Your task to perform on an android device: turn on location history Image 0: 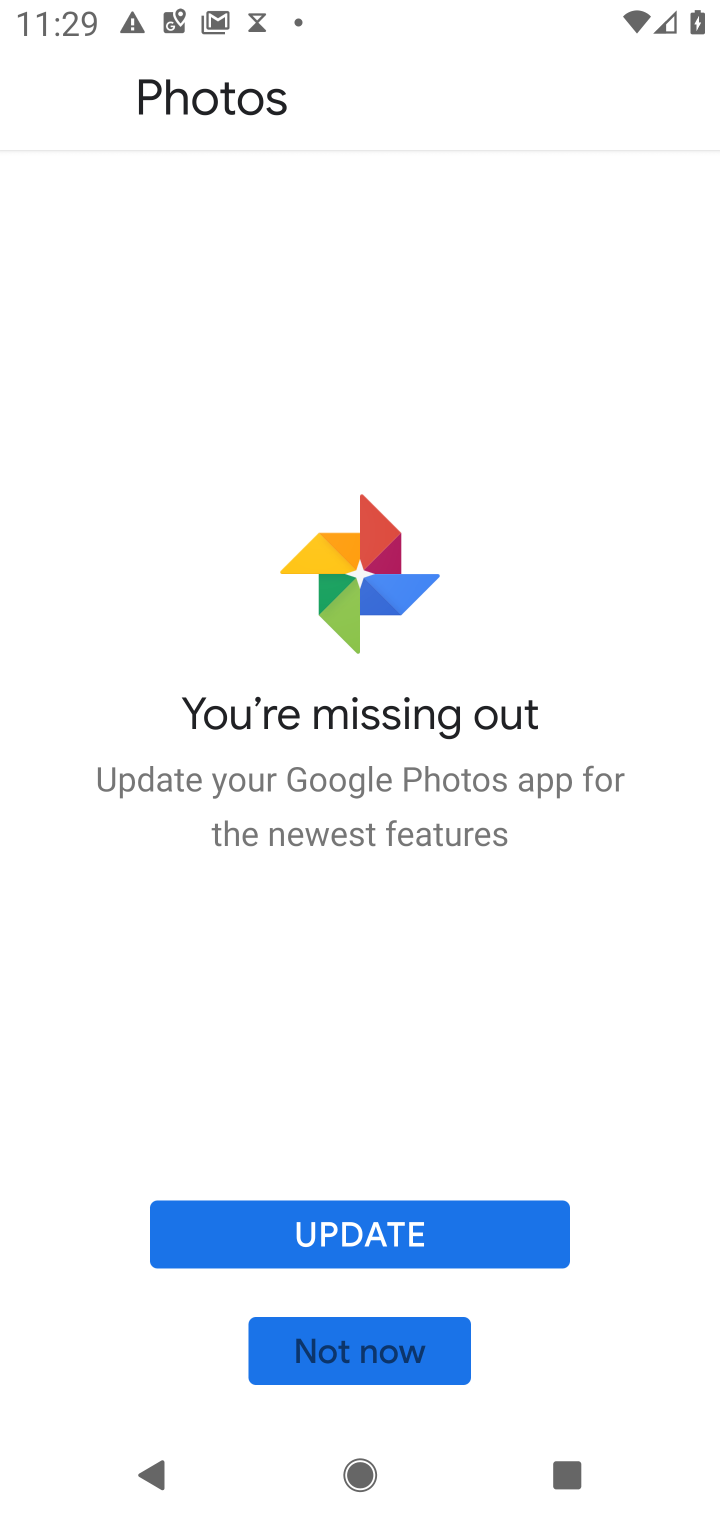
Step 0: press home button
Your task to perform on an android device: turn on location history Image 1: 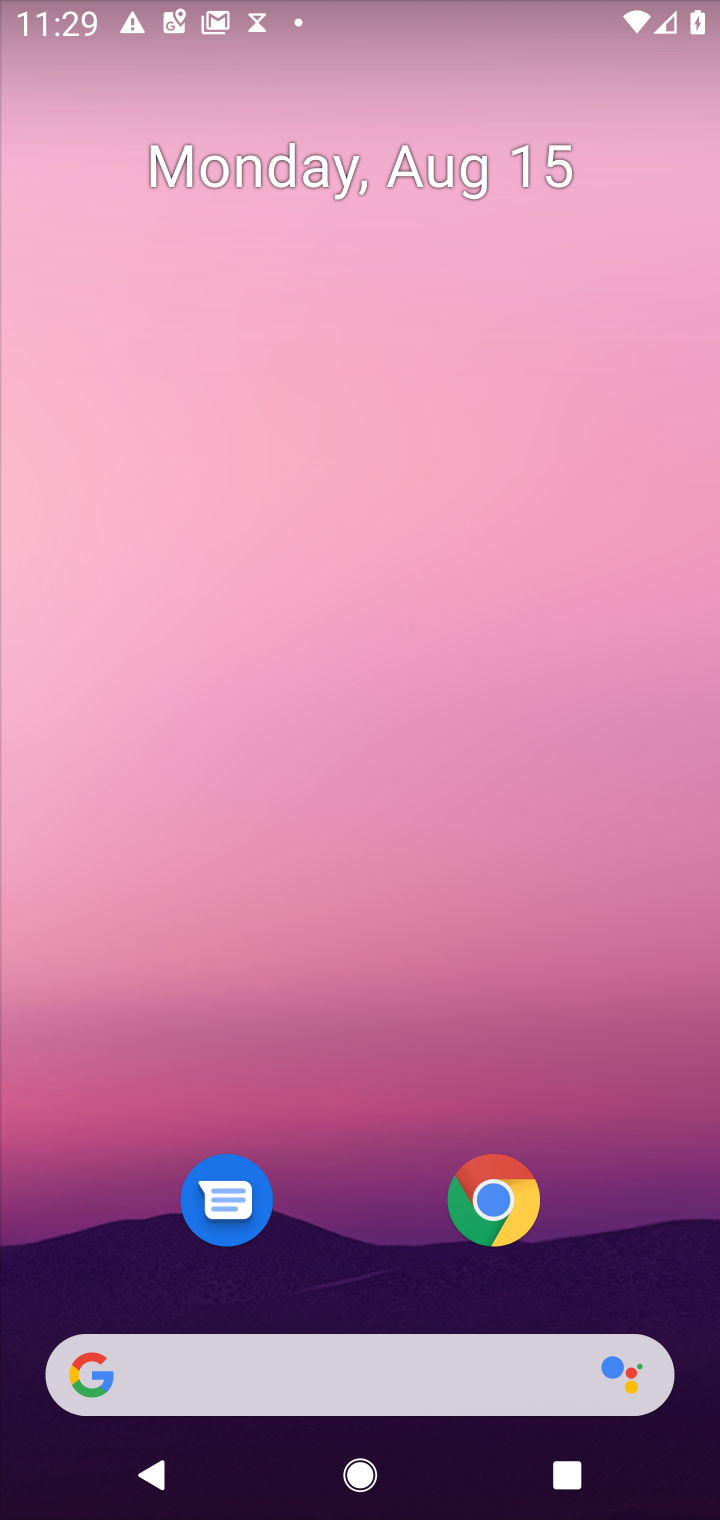
Step 1: drag from (334, 1211) to (334, 491)
Your task to perform on an android device: turn on location history Image 2: 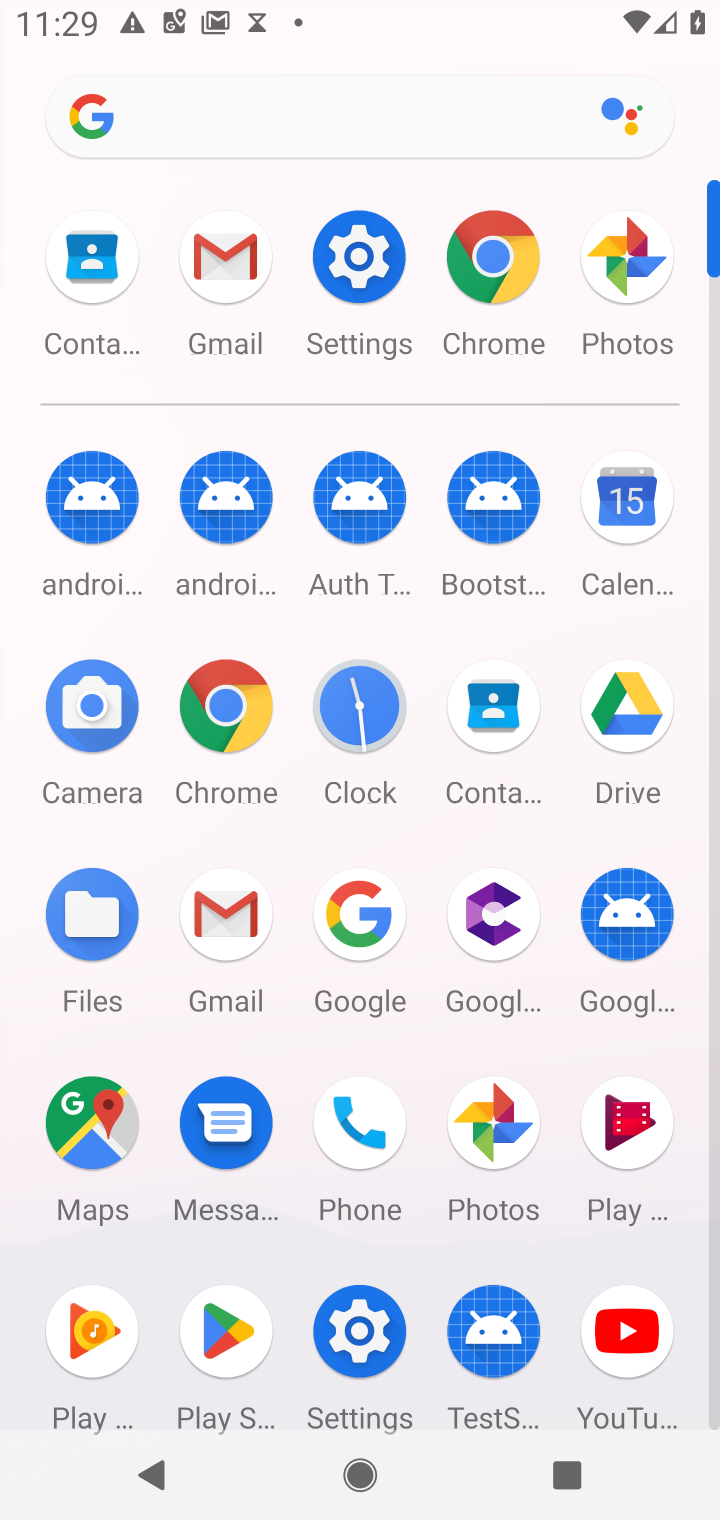
Step 2: click (369, 256)
Your task to perform on an android device: turn on location history Image 3: 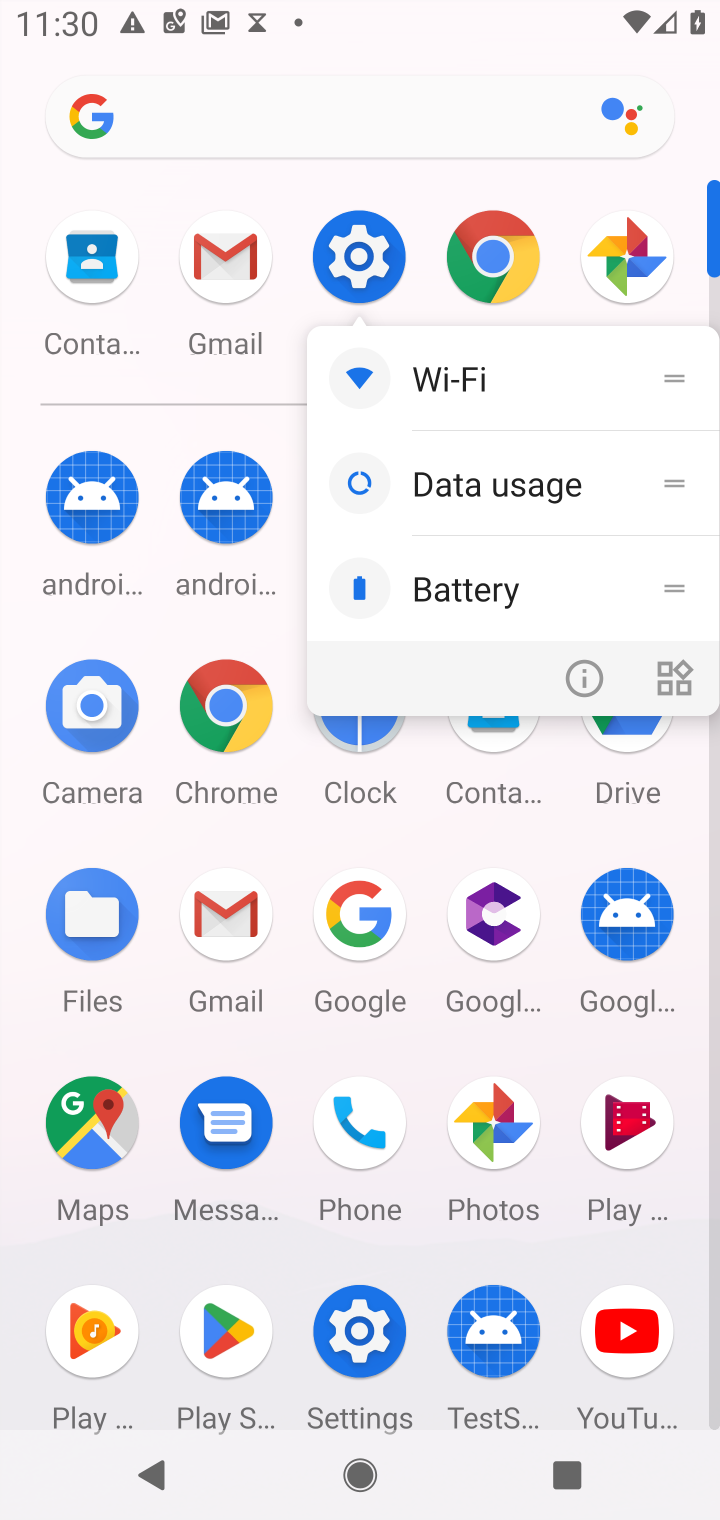
Step 3: click (356, 257)
Your task to perform on an android device: turn on location history Image 4: 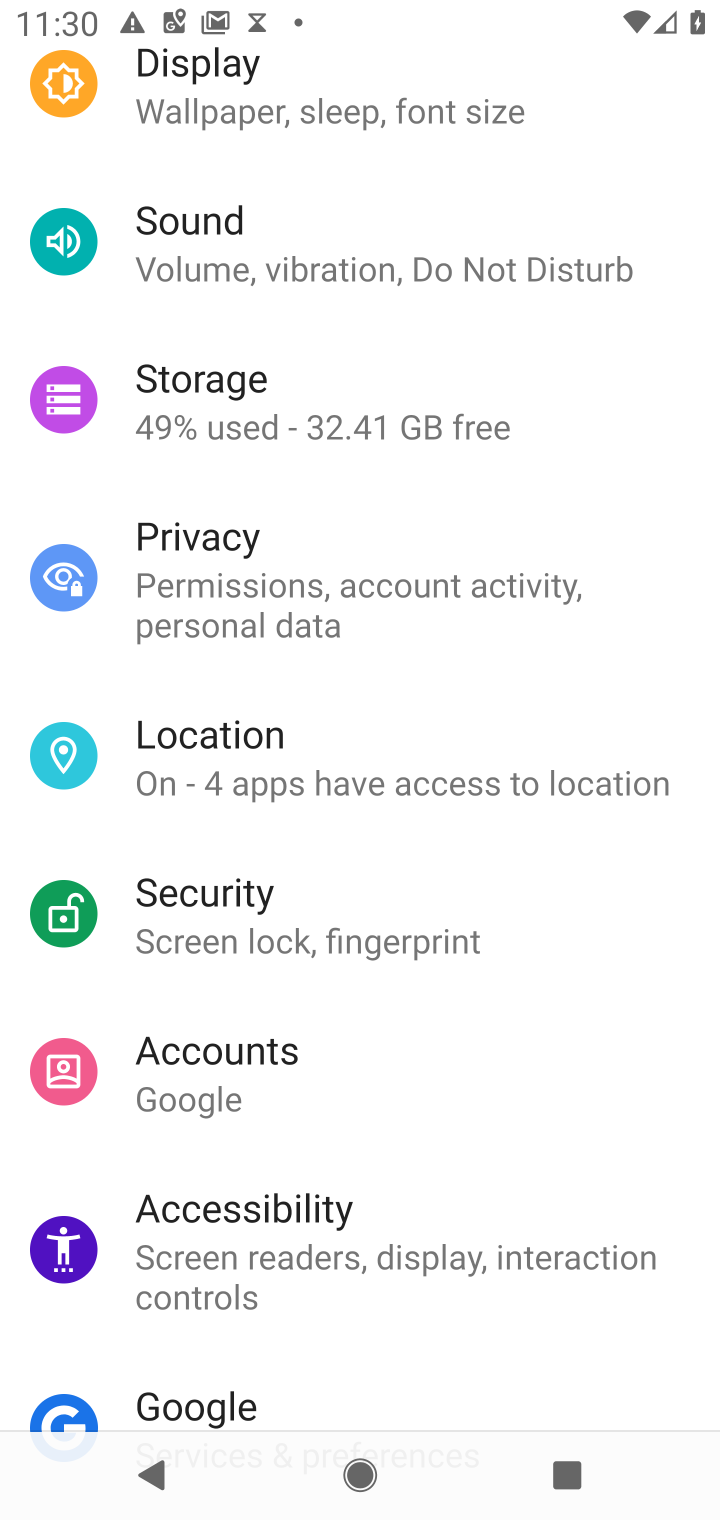
Step 4: click (369, 747)
Your task to perform on an android device: turn on location history Image 5: 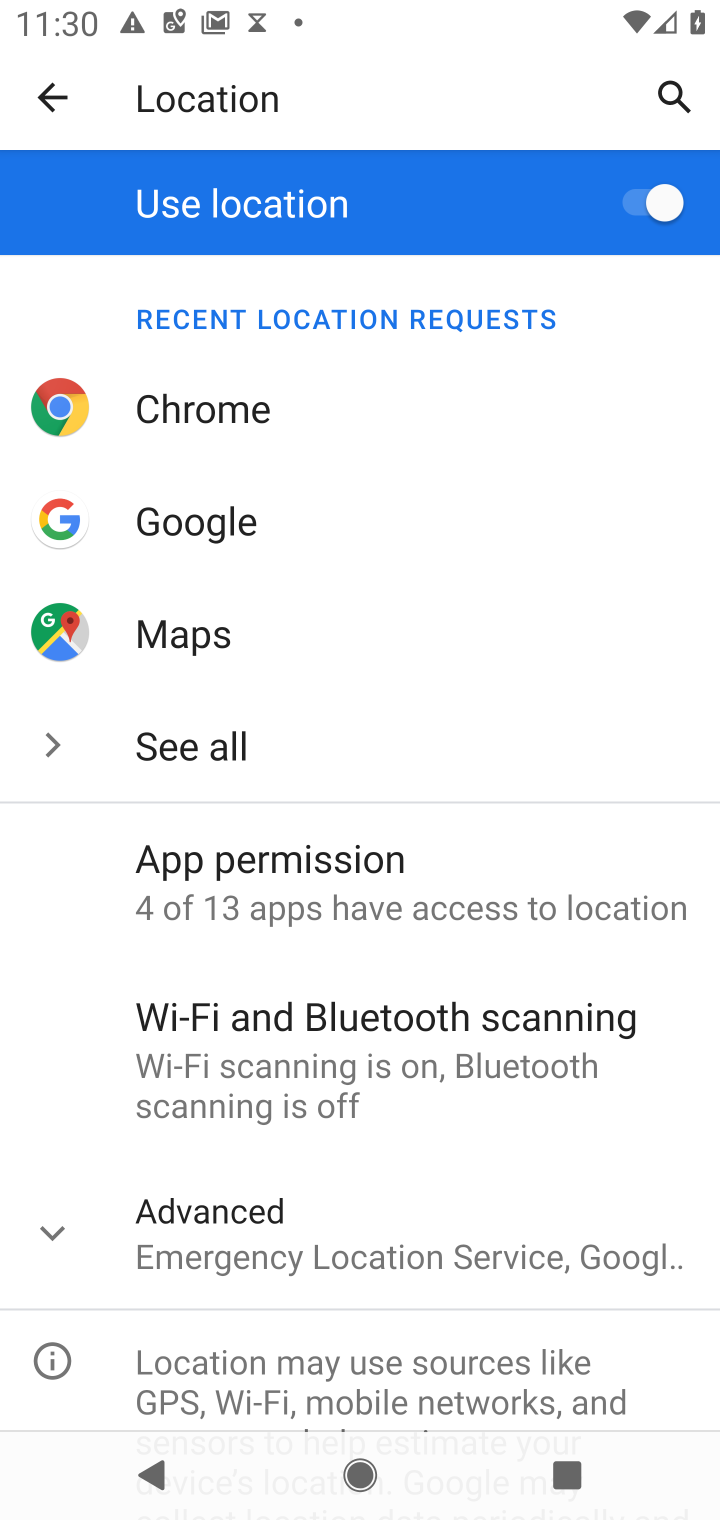
Step 5: click (369, 1255)
Your task to perform on an android device: turn on location history Image 6: 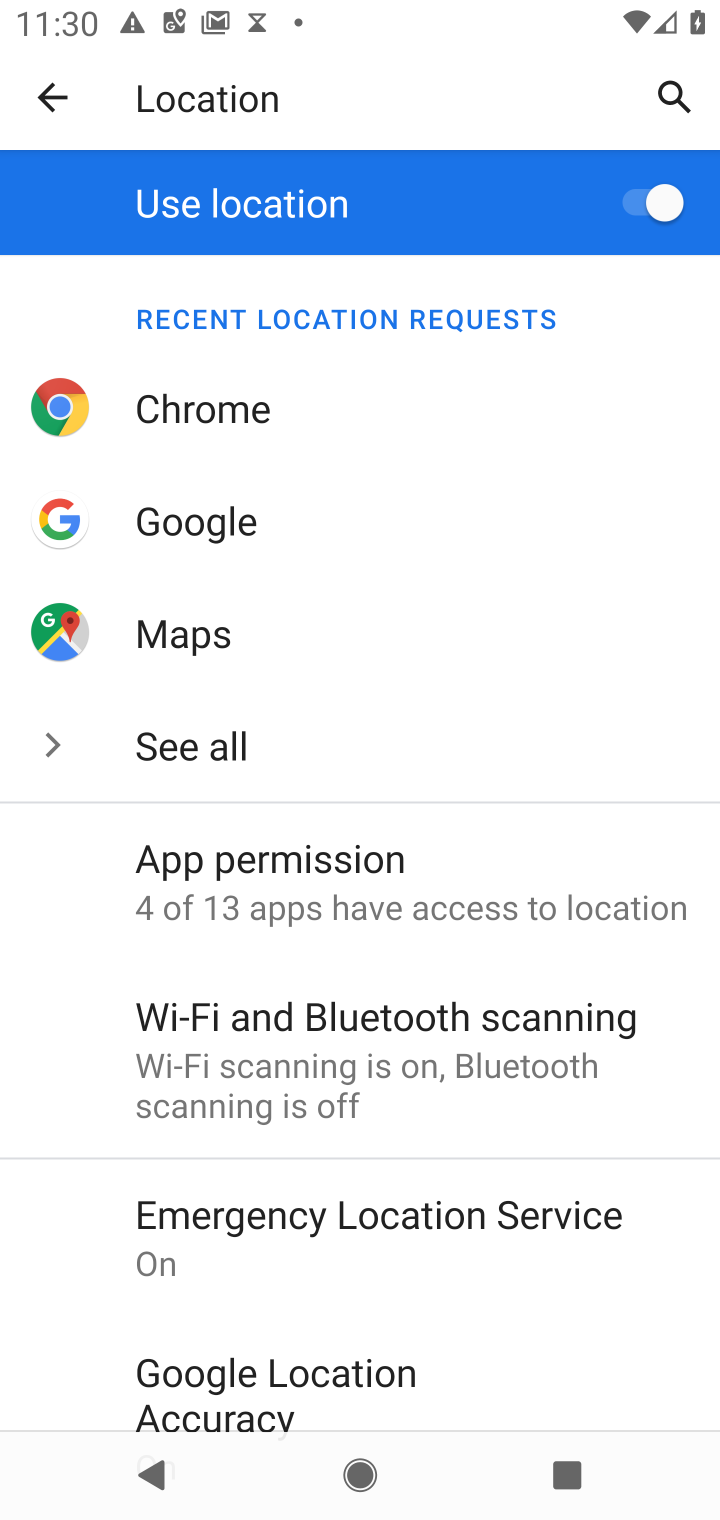
Step 6: drag from (426, 1314) to (344, 565)
Your task to perform on an android device: turn on location history Image 7: 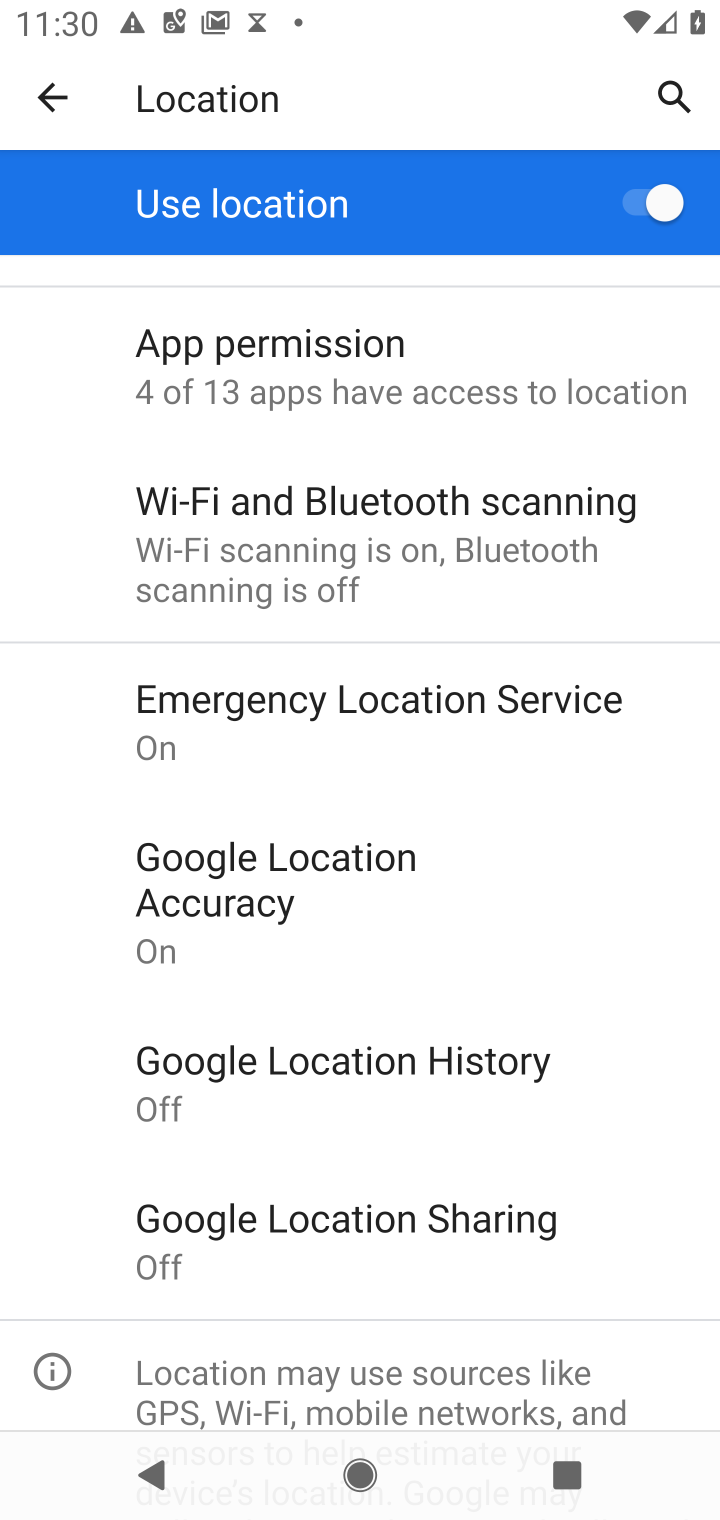
Step 7: click (467, 1033)
Your task to perform on an android device: turn on location history Image 8: 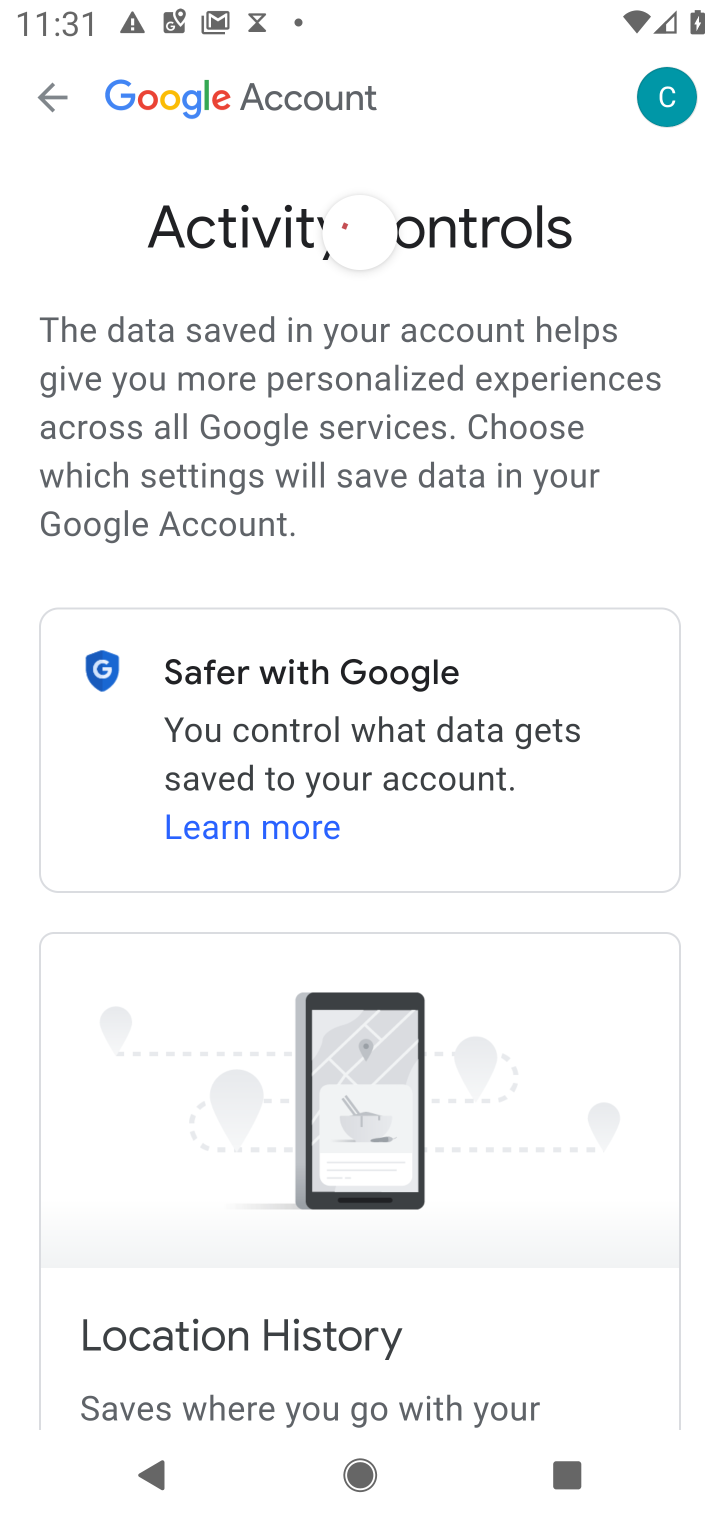
Step 8: click (425, 363)
Your task to perform on an android device: turn on location history Image 9: 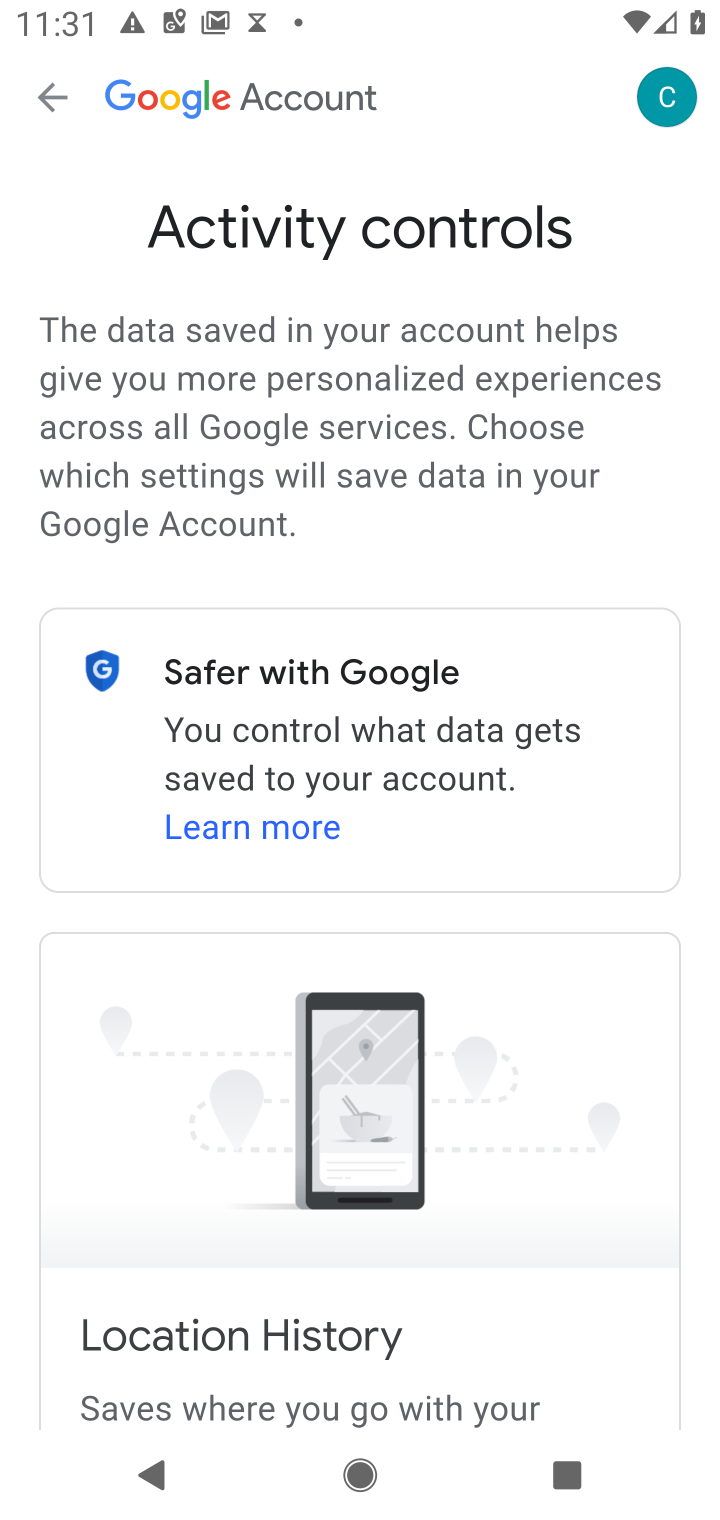
Step 9: drag from (443, 1154) to (459, 369)
Your task to perform on an android device: turn on location history Image 10: 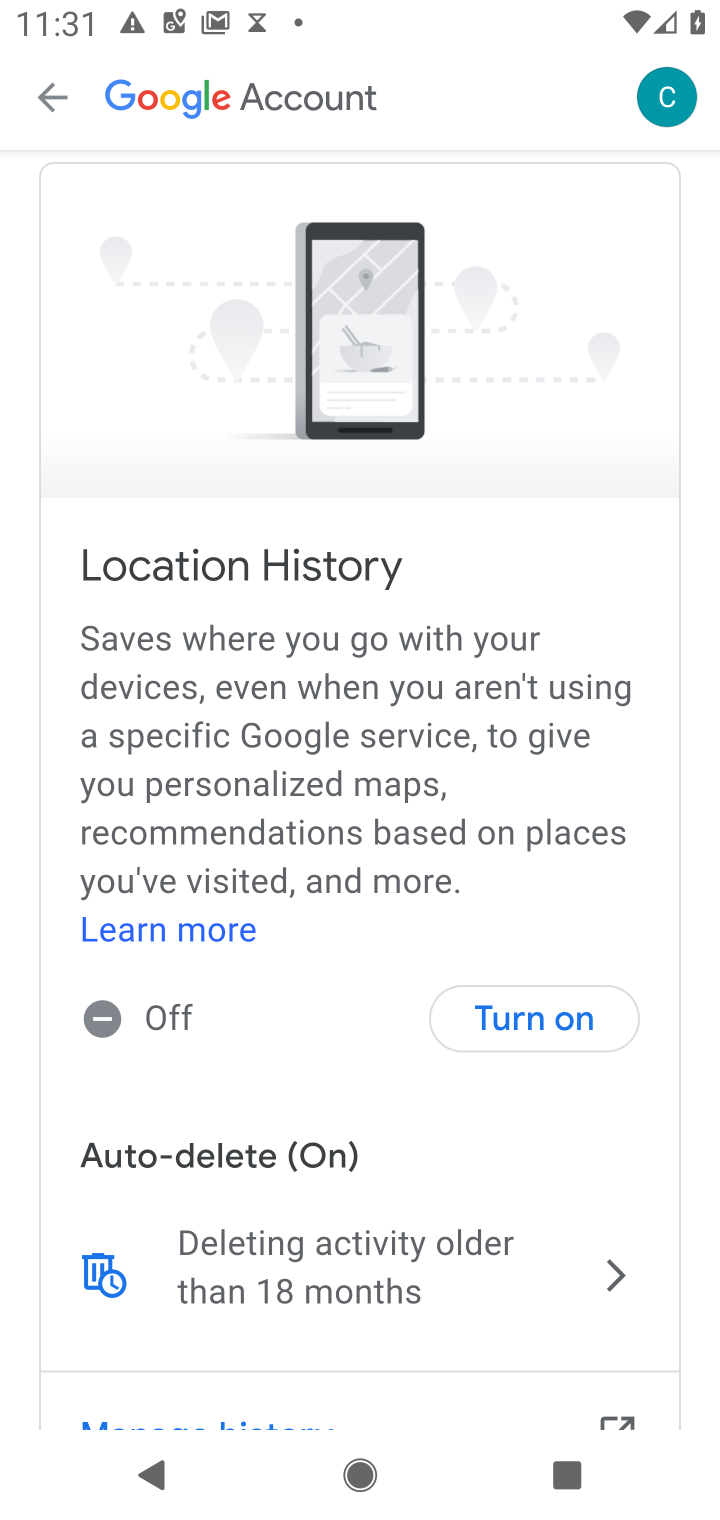
Step 10: drag from (476, 932) to (391, 233)
Your task to perform on an android device: turn on location history Image 11: 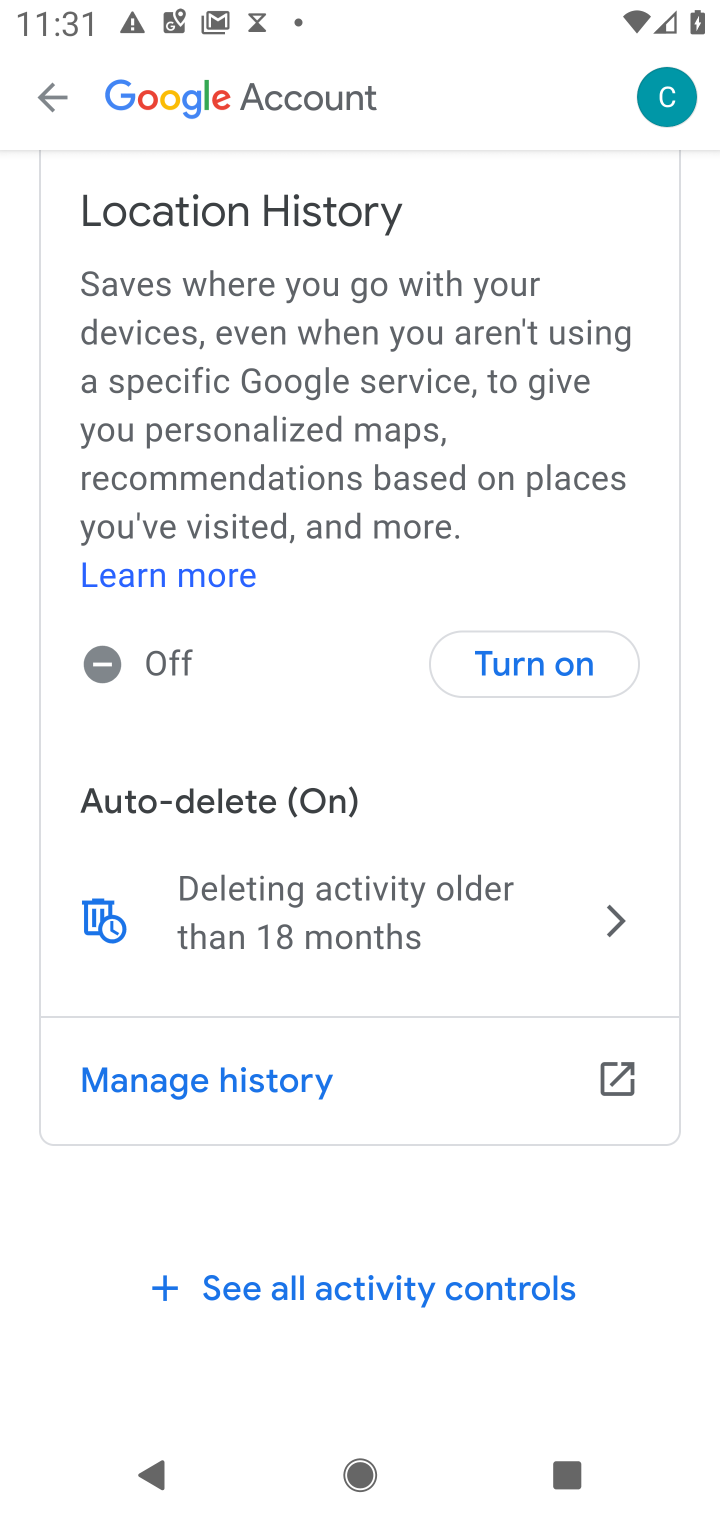
Step 11: click (489, 673)
Your task to perform on an android device: turn on location history Image 12: 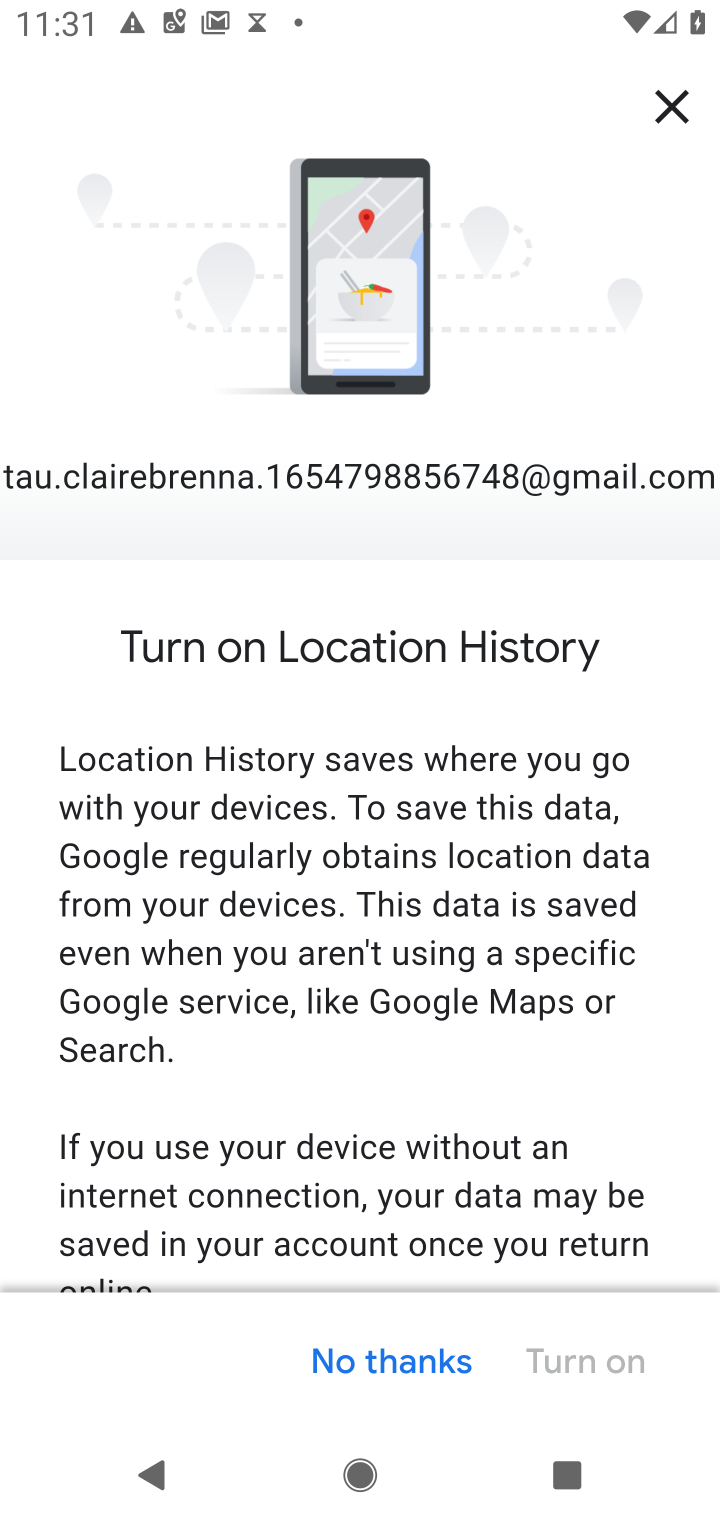
Step 12: drag from (541, 1040) to (434, 61)
Your task to perform on an android device: turn on location history Image 13: 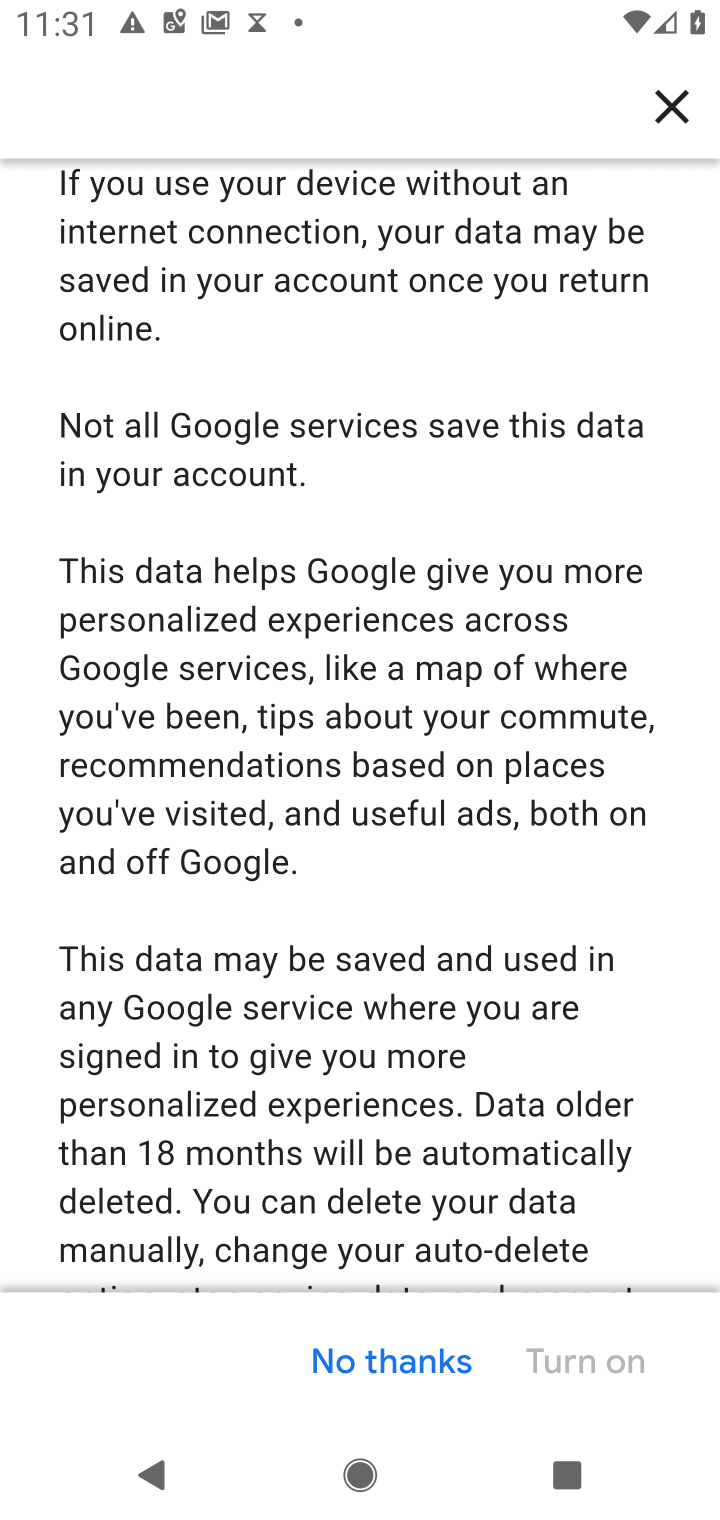
Step 13: drag from (471, 877) to (427, 359)
Your task to perform on an android device: turn on location history Image 14: 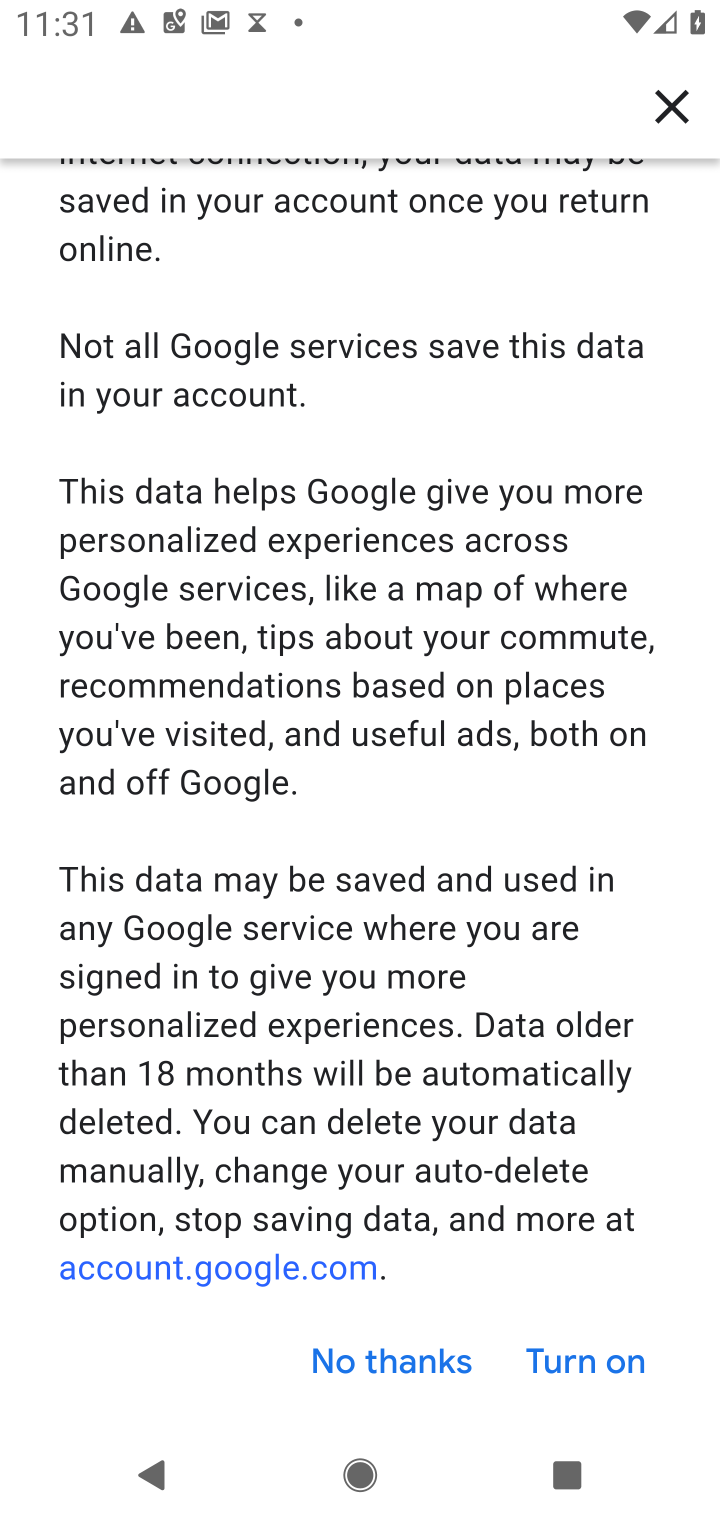
Step 14: click (557, 1346)
Your task to perform on an android device: turn on location history Image 15: 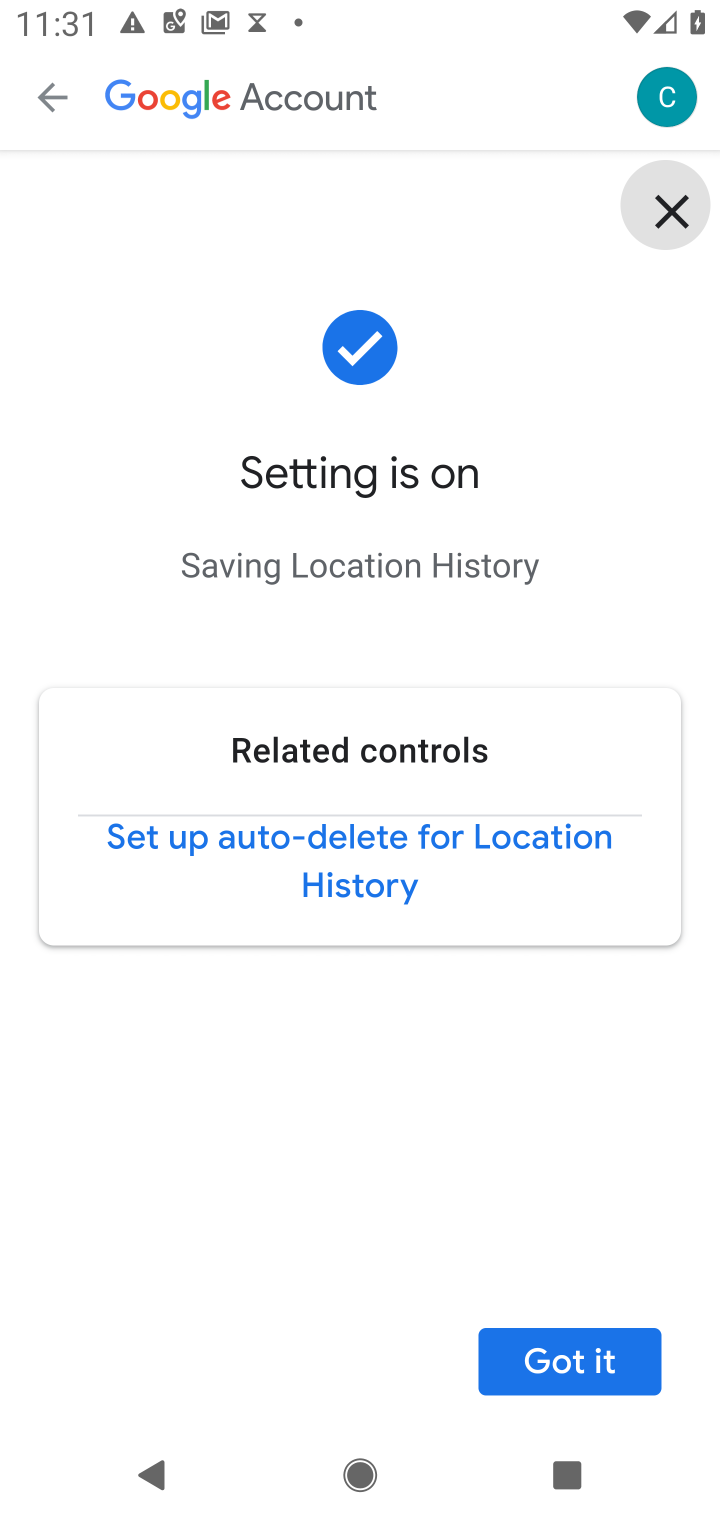
Step 15: task complete